Your task to perform on an android device: Open display settings Image 0: 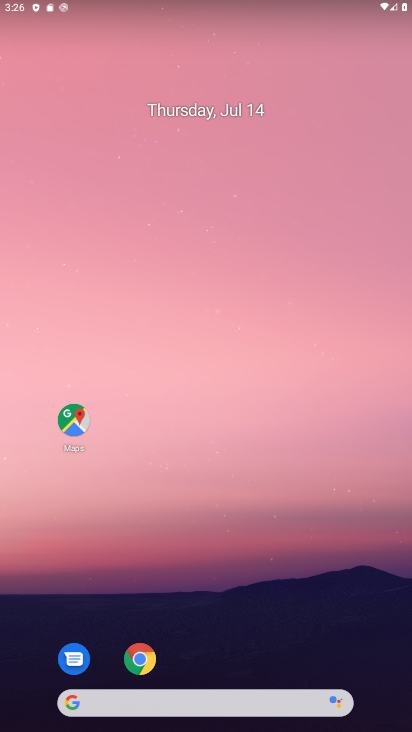
Step 0: drag from (208, 680) to (303, 145)
Your task to perform on an android device: Open display settings Image 1: 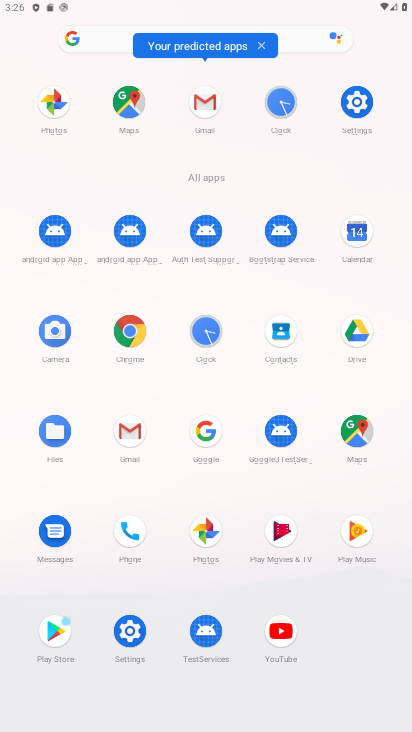
Step 1: click (128, 634)
Your task to perform on an android device: Open display settings Image 2: 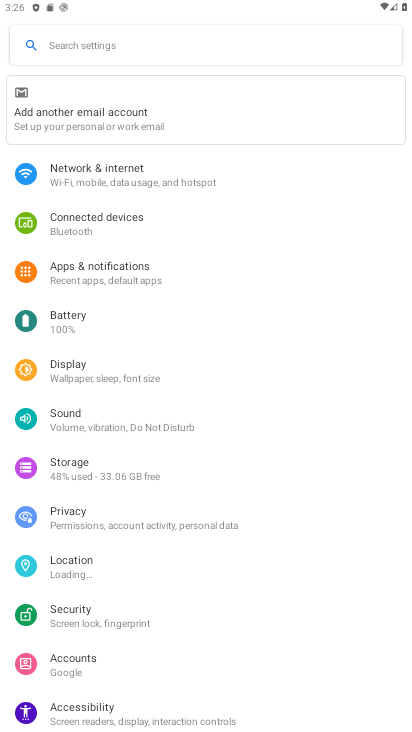
Step 2: click (101, 381)
Your task to perform on an android device: Open display settings Image 3: 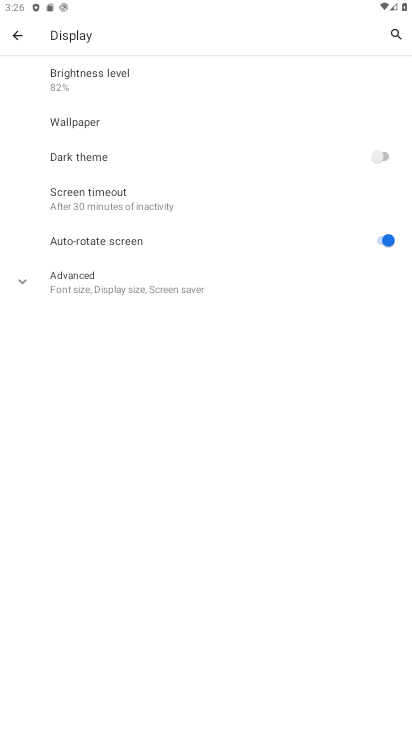
Step 3: task complete